Your task to perform on an android device: What's the weather? Image 0: 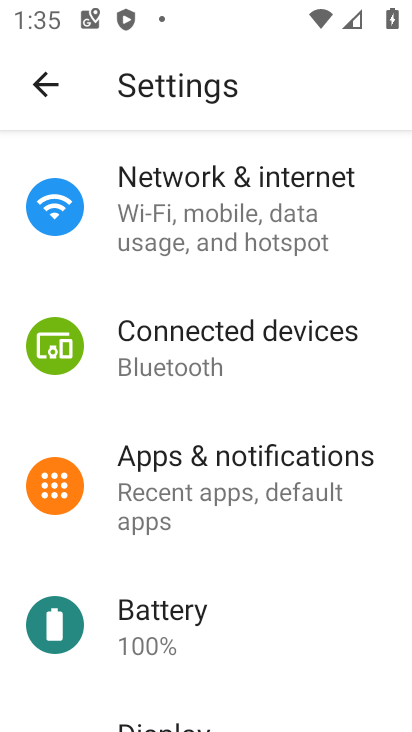
Step 0: press home button
Your task to perform on an android device: What's the weather? Image 1: 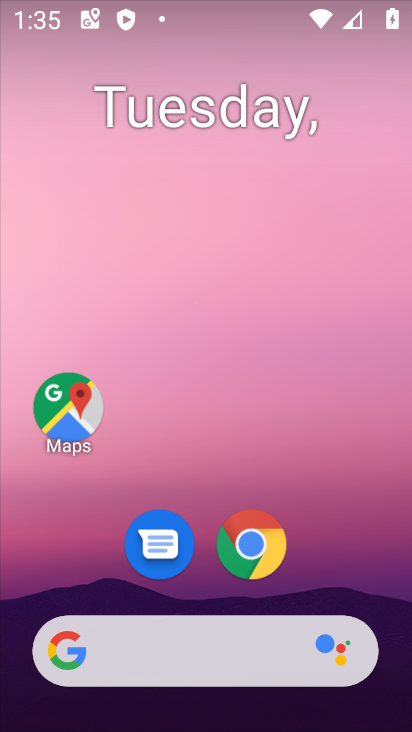
Step 1: drag from (6, 279) to (396, 314)
Your task to perform on an android device: What's the weather? Image 2: 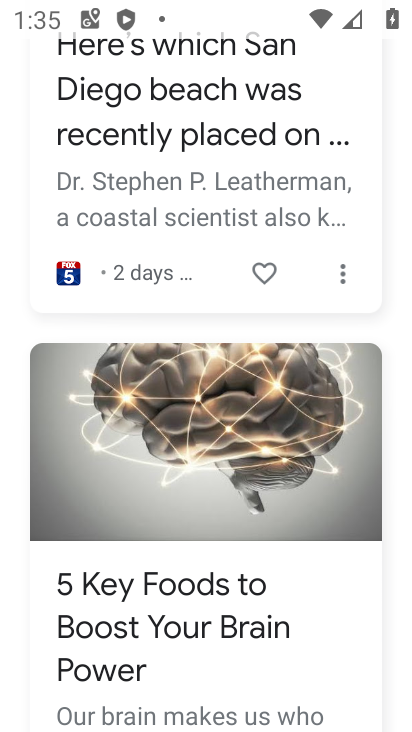
Step 2: drag from (300, 88) to (279, 504)
Your task to perform on an android device: What's the weather? Image 3: 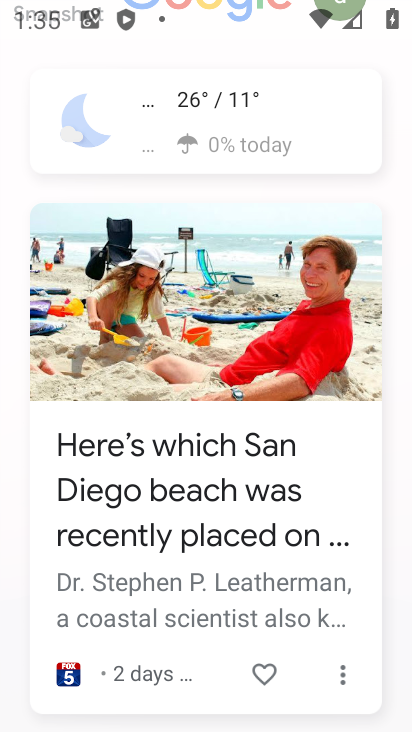
Step 3: drag from (290, 185) to (284, 427)
Your task to perform on an android device: What's the weather? Image 4: 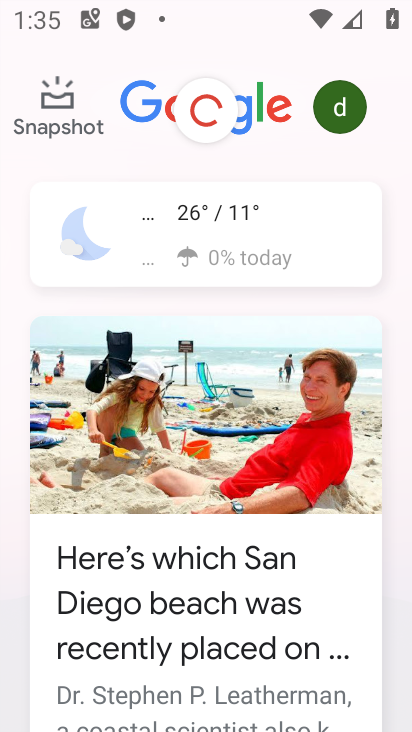
Step 4: click (240, 229)
Your task to perform on an android device: What's the weather? Image 5: 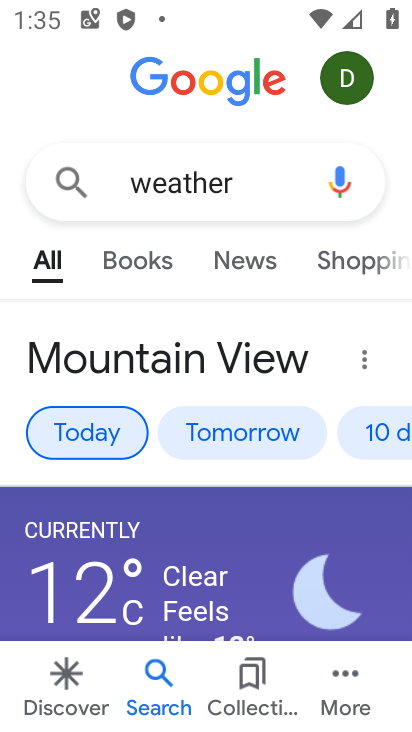
Step 5: task complete